Your task to perform on an android device: set the timer Image 0: 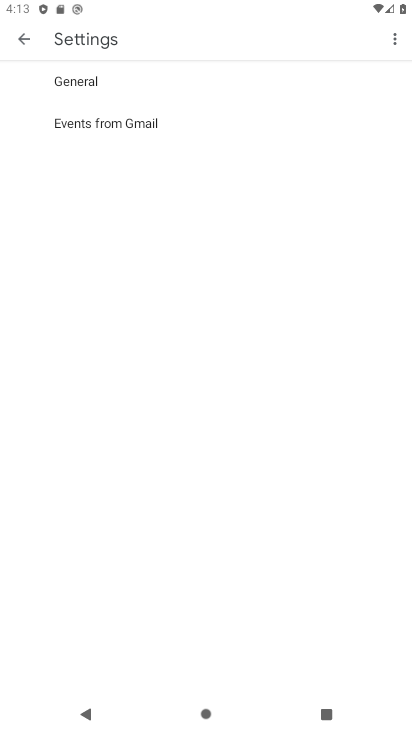
Step 0: press home button
Your task to perform on an android device: set the timer Image 1: 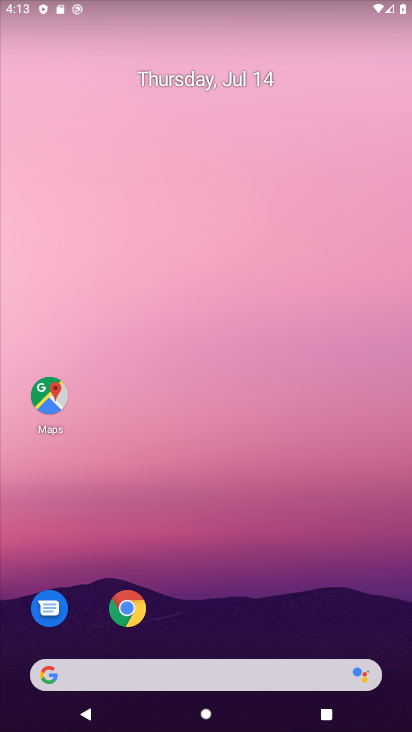
Step 1: drag from (215, 666) to (307, 42)
Your task to perform on an android device: set the timer Image 2: 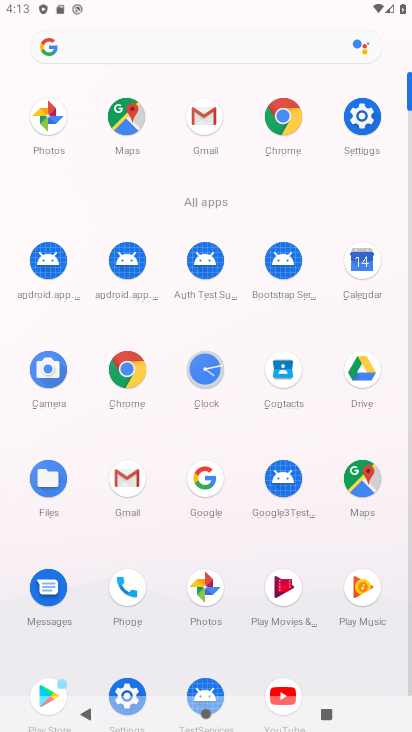
Step 2: click (196, 351)
Your task to perform on an android device: set the timer Image 3: 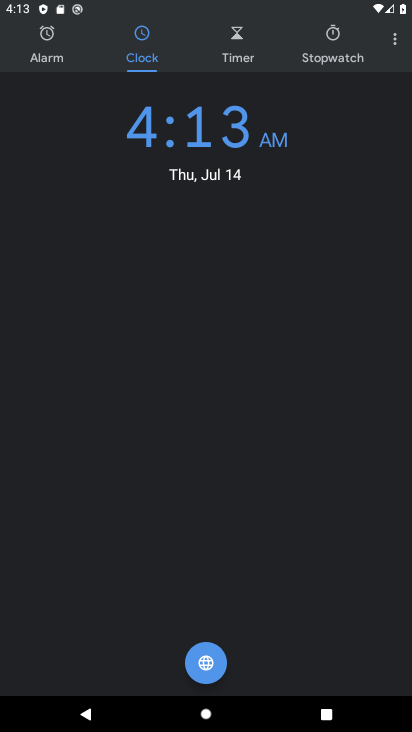
Step 3: click (246, 36)
Your task to perform on an android device: set the timer Image 4: 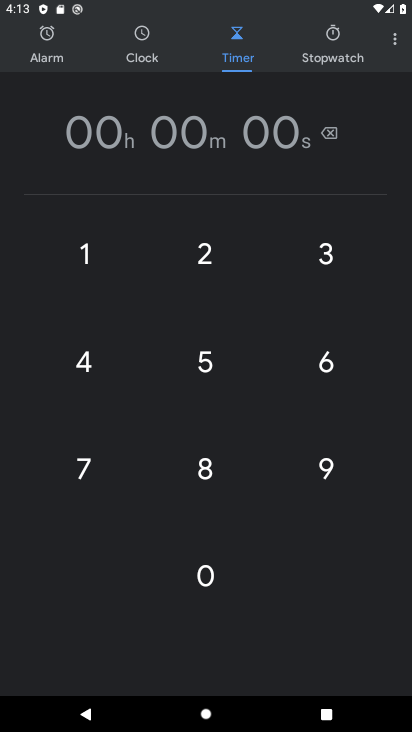
Step 4: click (240, 264)
Your task to perform on an android device: set the timer Image 5: 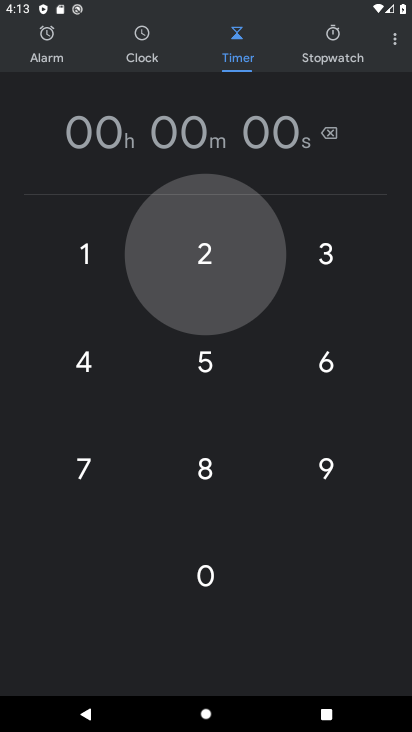
Step 5: click (240, 264)
Your task to perform on an android device: set the timer Image 6: 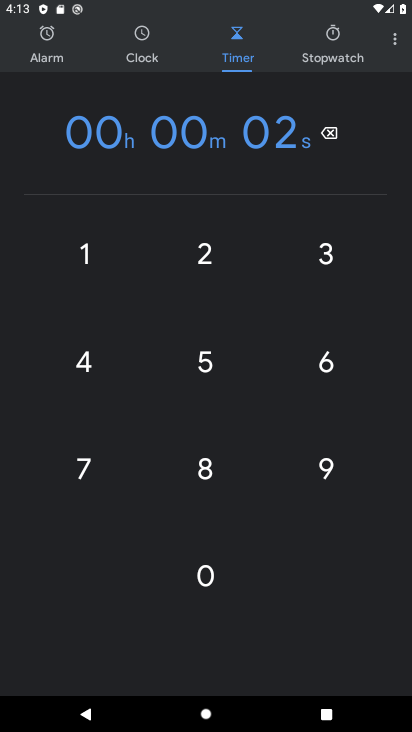
Step 6: click (240, 264)
Your task to perform on an android device: set the timer Image 7: 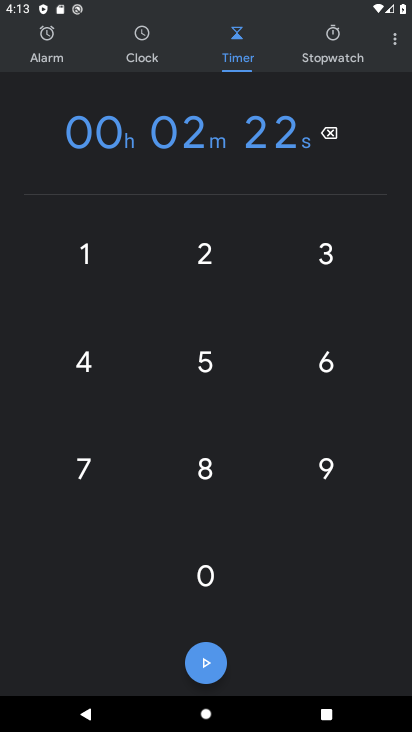
Step 7: click (240, 264)
Your task to perform on an android device: set the timer Image 8: 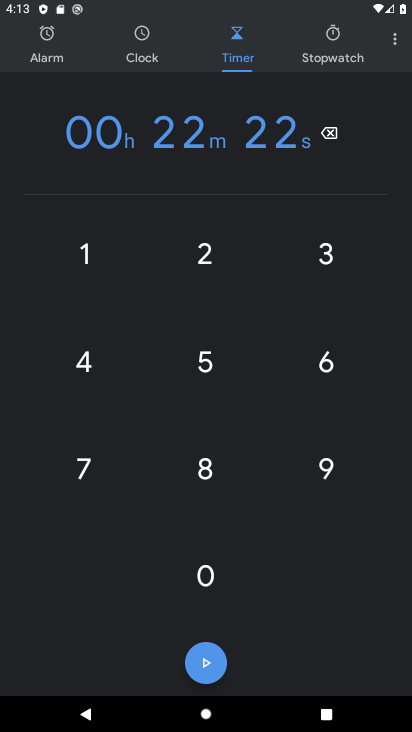
Step 8: click (213, 660)
Your task to perform on an android device: set the timer Image 9: 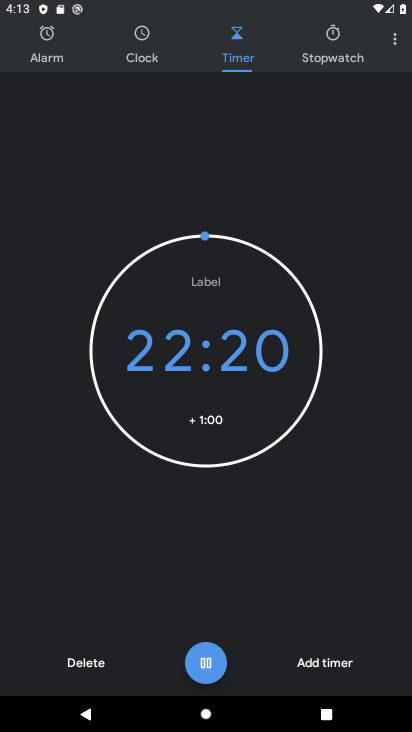
Step 9: task complete